Your task to perform on an android device: turn on showing notifications on the lock screen Image 0: 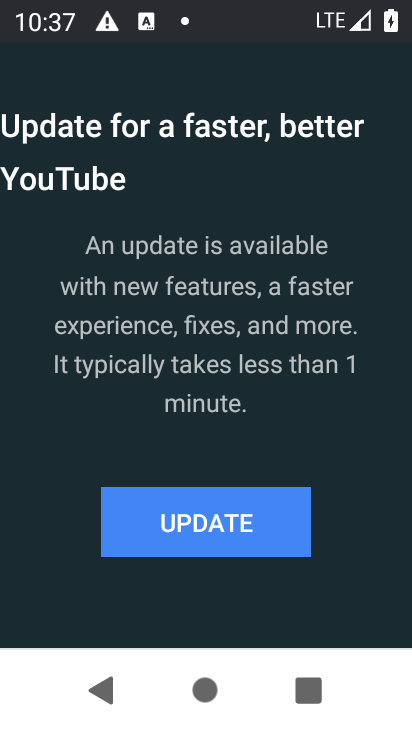
Step 0: press home button
Your task to perform on an android device: turn on showing notifications on the lock screen Image 1: 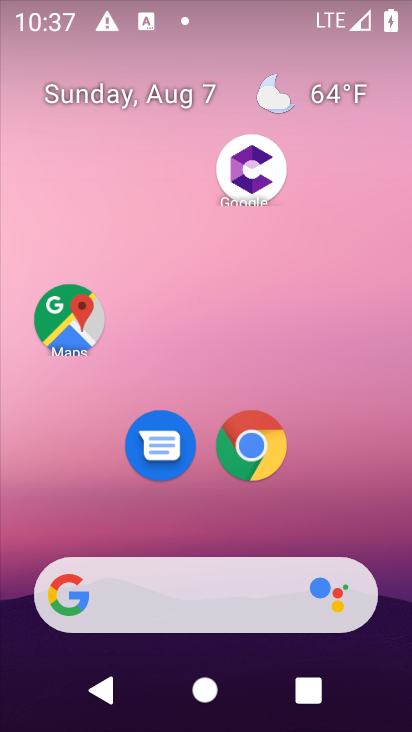
Step 1: drag from (211, 534) to (230, 35)
Your task to perform on an android device: turn on showing notifications on the lock screen Image 2: 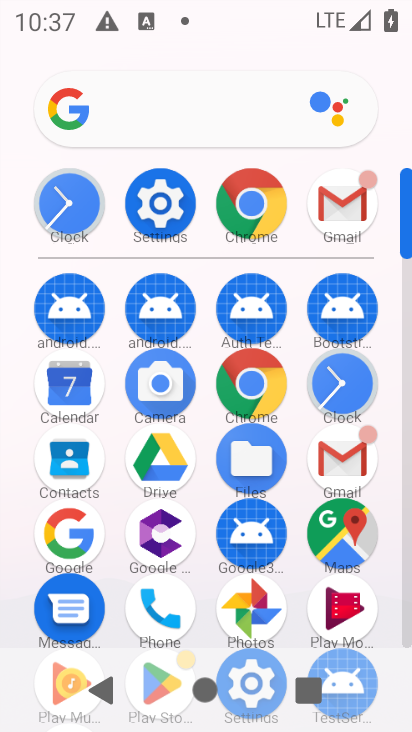
Step 2: click (153, 197)
Your task to perform on an android device: turn on showing notifications on the lock screen Image 3: 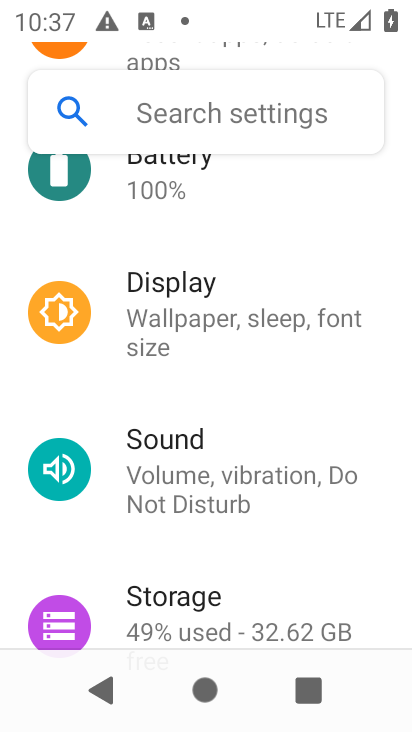
Step 3: drag from (228, 183) to (268, 657)
Your task to perform on an android device: turn on showing notifications on the lock screen Image 4: 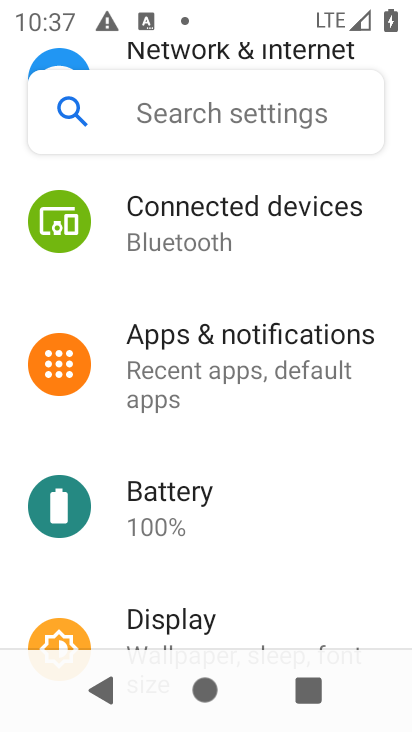
Step 4: click (200, 383)
Your task to perform on an android device: turn on showing notifications on the lock screen Image 5: 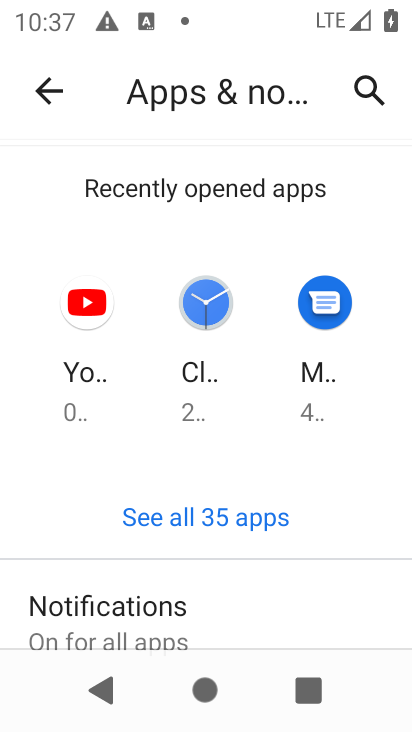
Step 5: click (227, 602)
Your task to perform on an android device: turn on showing notifications on the lock screen Image 6: 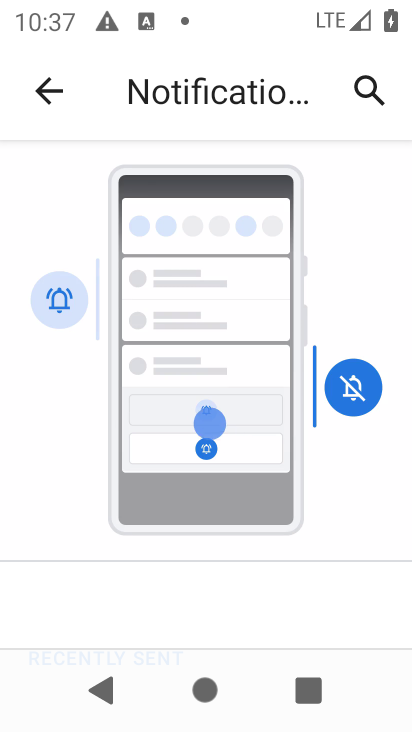
Step 6: drag from (219, 603) to (227, 167)
Your task to perform on an android device: turn on showing notifications on the lock screen Image 7: 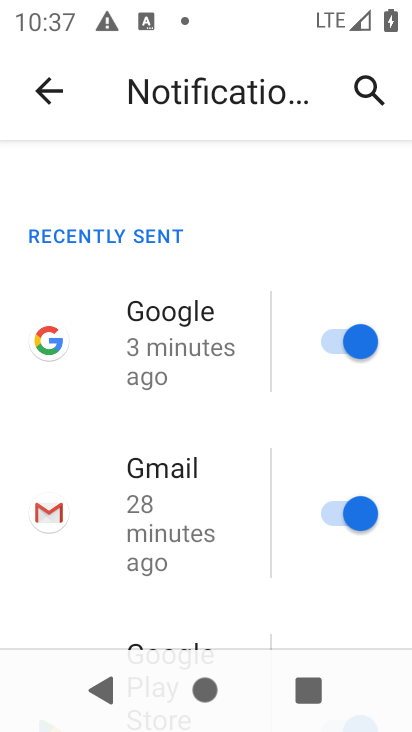
Step 7: click (234, 177)
Your task to perform on an android device: turn on showing notifications on the lock screen Image 8: 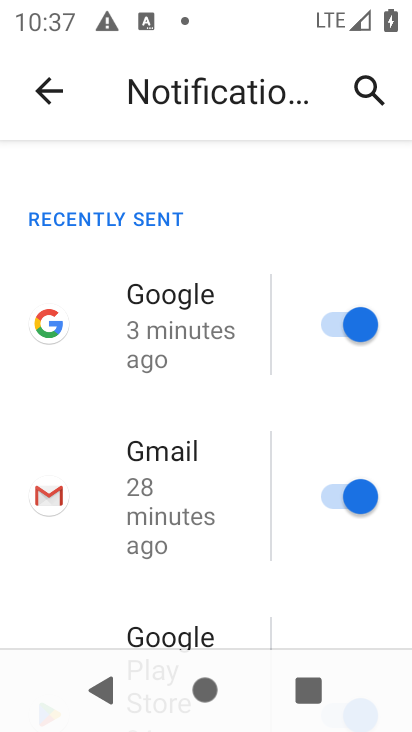
Step 8: drag from (250, 609) to (260, 116)
Your task to perform on an android device: turn on showing notifications on the lock screen Image 9: 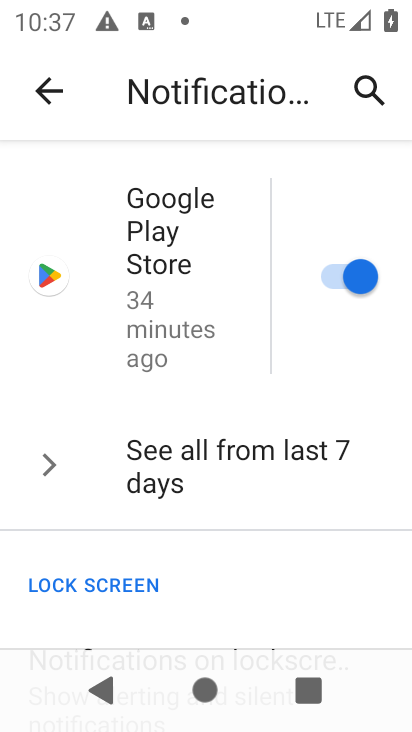
Step 9: drag from (211, 588) to (240, 154)
Your task to perform on an android device: turn on showing notifications on the lock screen Image 10: 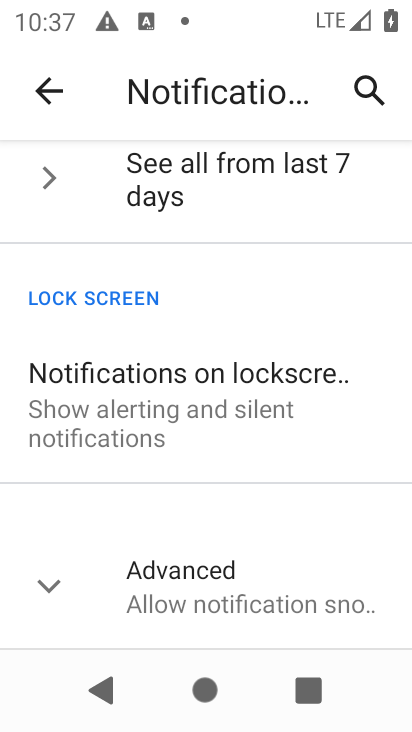
Step 10: click (263, 408)
Your task to perform on an android device: turn on showing notifications on the lock screen Image 11: 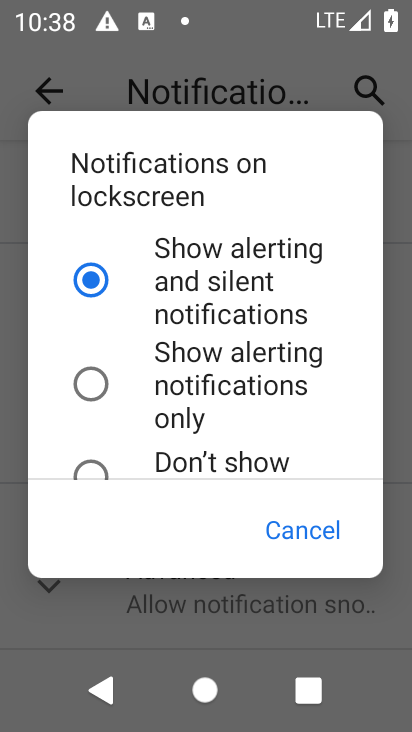
Step 11: click (95, 383)
Your task to perform on an android device: turn on showing notifications on the lock screen Image 12: 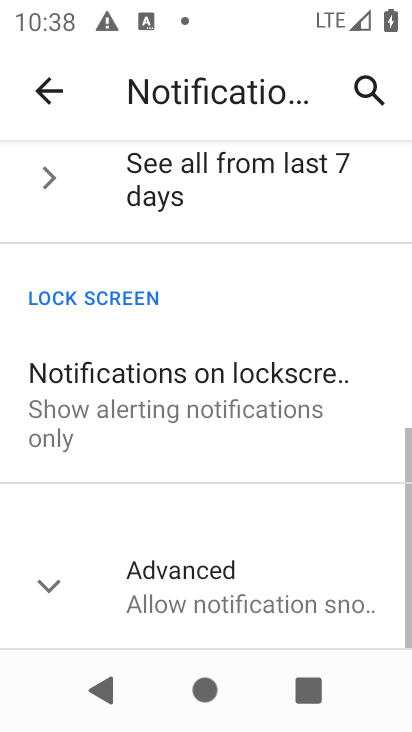
Step 12: task complete